Your task to perform on an android device: turn off notifications in google photos Image 0: 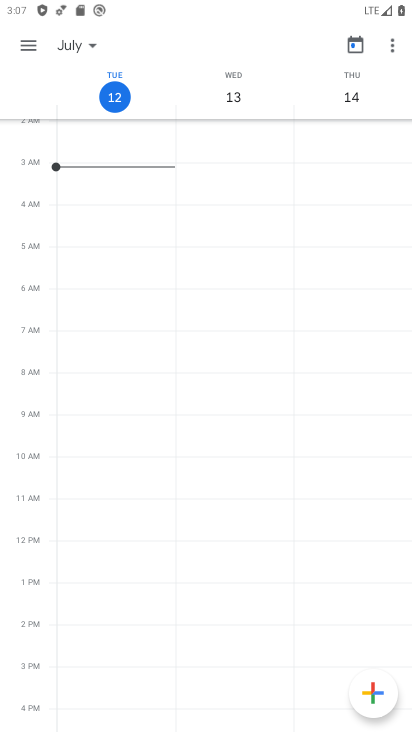
Step 0: press home button
Your task to perform on an android device: turn off notifications in google photos Image 1: 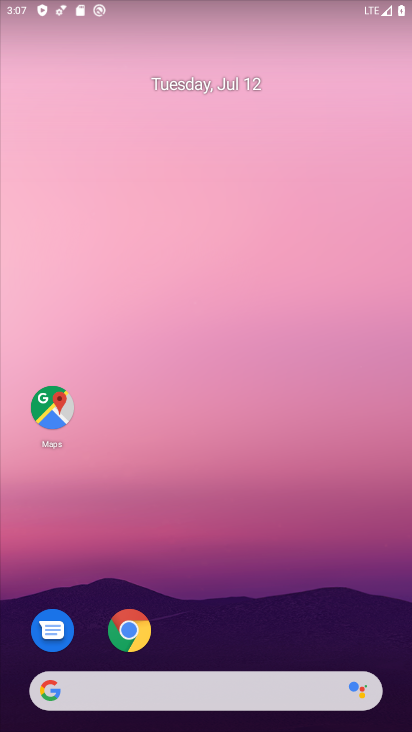
Step 1: drag from (179, 388) to (375, 15)
Your task to perform on an android device: turn off notifications in google photos Image 2: 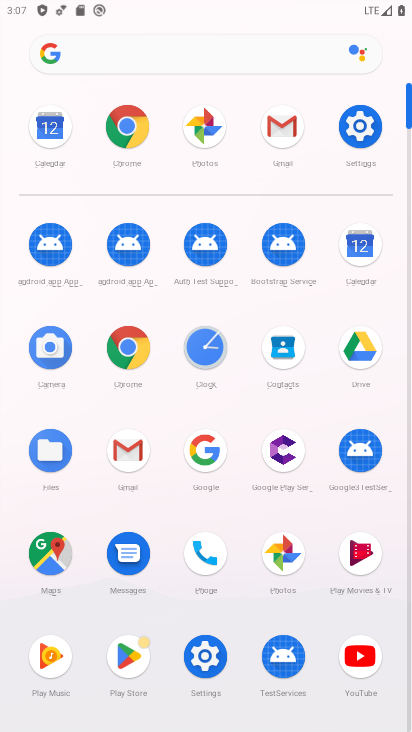
Step 2: click (291, 559)
Your task to perform on an android device: turn off notifications in google photos Image 3: 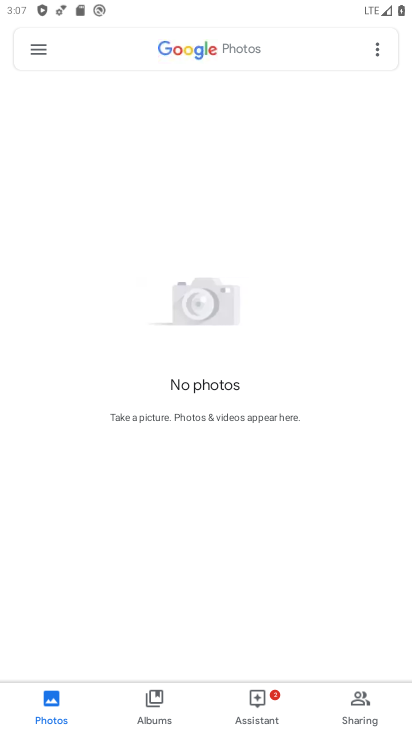
Step 3: click (37, 44)
Your task to perform on an android device: turn off notifications in google photos Image 4: 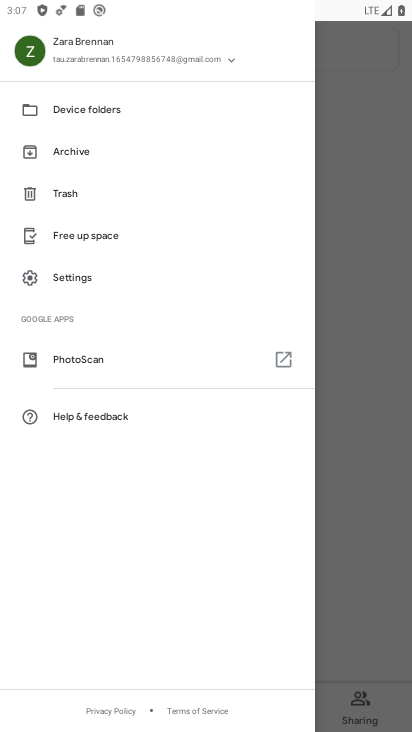
Step 4: click (89, 280)
Your task to perform on an android device: turn off notifications in google photos Image 5: 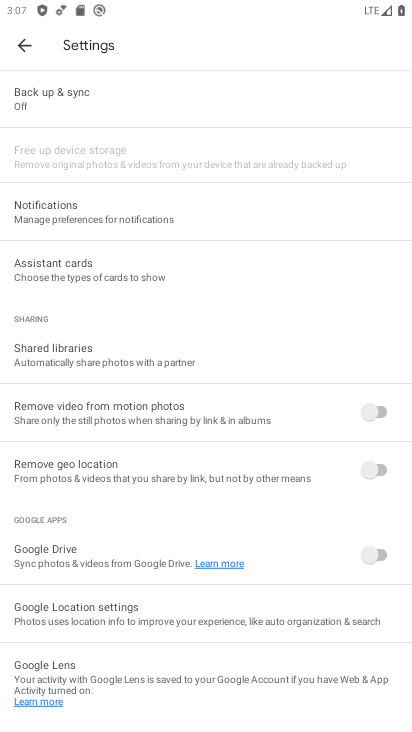
Step 5: click (41, 209)
Your task to perform on an android device: turn off notifications in google photos Image 6: 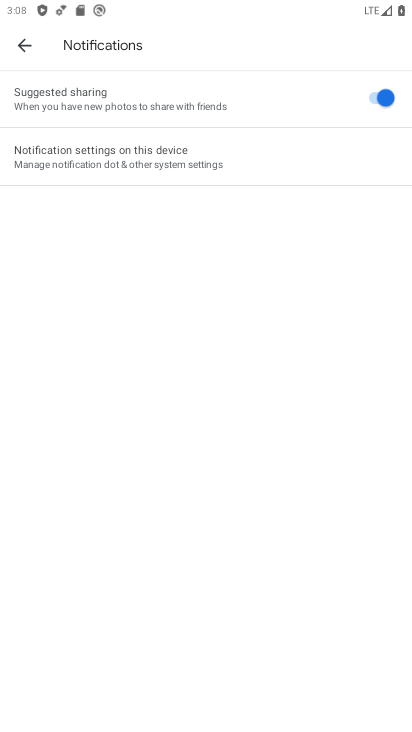
Step 6: click (278, 162)
Your task to perform on an android device: turn off notifications in google photos Image 7: 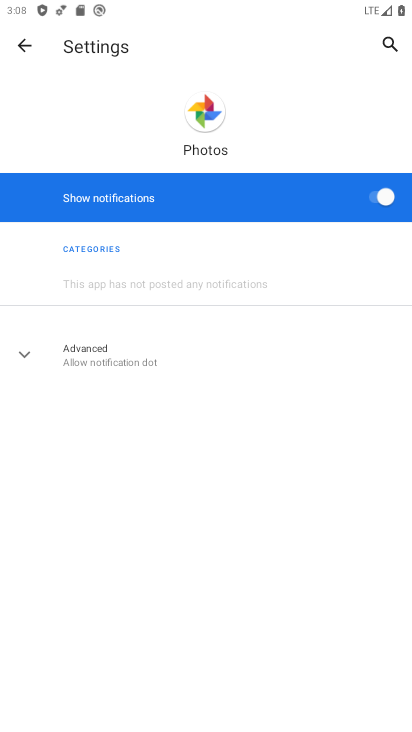
Step 7: click (358, 191)
Your task to perform on an android device: turn off notifications in google photos Image 8: 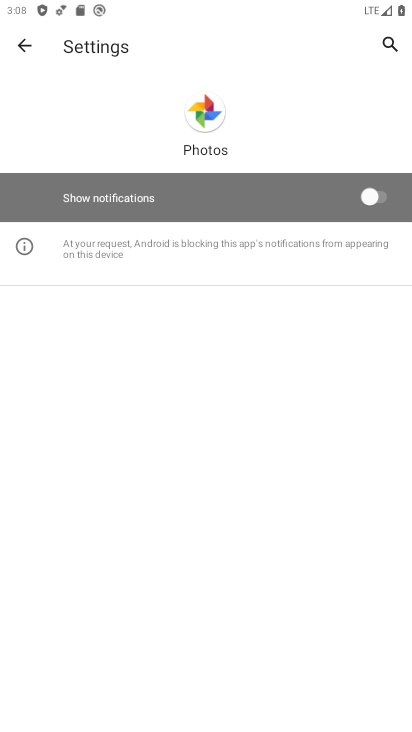
Step 8: task complete